Your task to perform on an android device: turn on javascript in the chrome app Image 0: 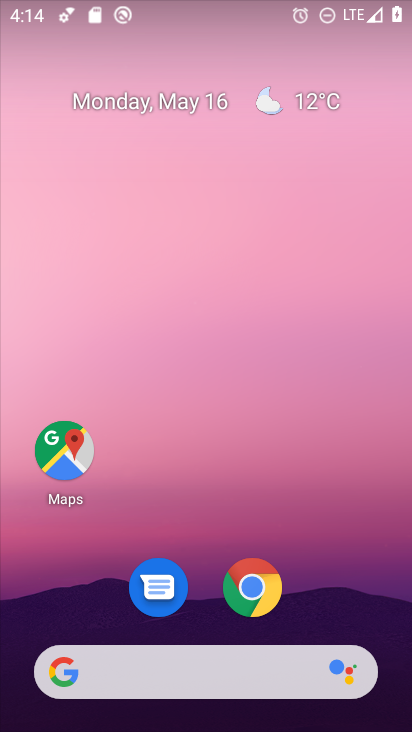
Step 0: click (253, 586)
Your task to perform on an android device: turn on javascript in the chrome app Image 1: 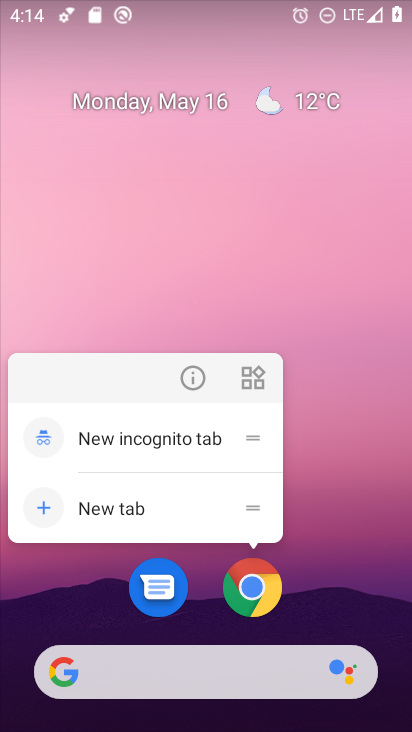
Step 1: click (253, 586)
Your task to perform on an android device: turn on javascript in the chrome app Image 2: 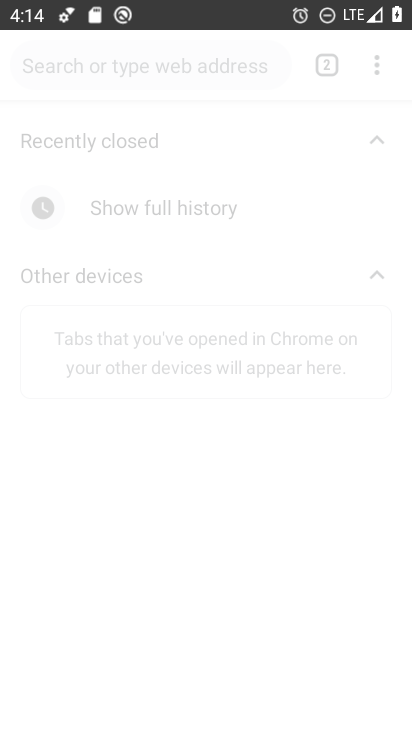
Step 2: click (253, 584)
Your task to perform on an android device: turn on javascript in the chrome app Image 3: 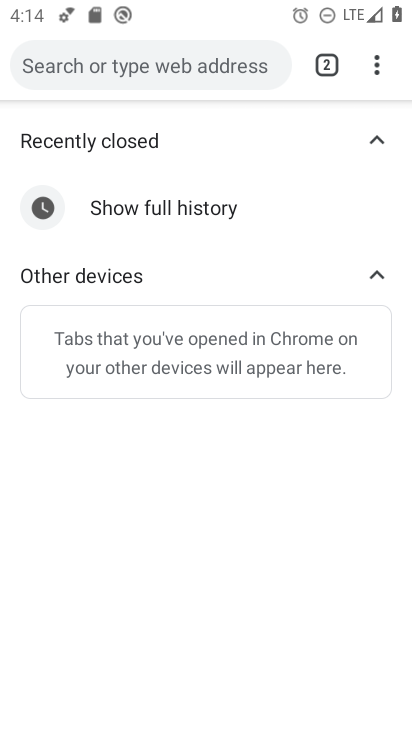
Step 3: click (371, 63)
Your task to perform on an android device: turn on javascript in the chrome app Image 4: 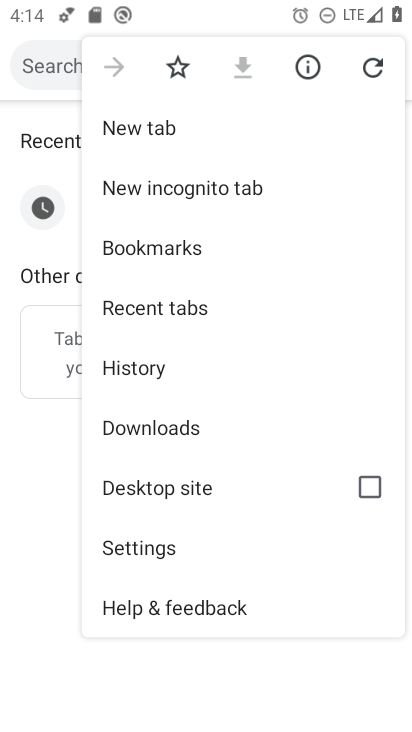
Step 4: drag from (227, 576) to (228, 275)
Your task to perform on an android device: turn on javascript in the chrome app Image 5: 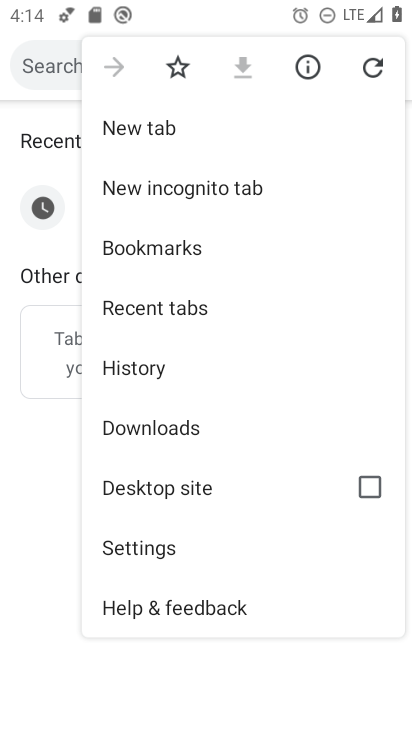
Step 5: click (154, 546)
Your task to perform on an android device: turn on javascript in the chrome app Image 6: 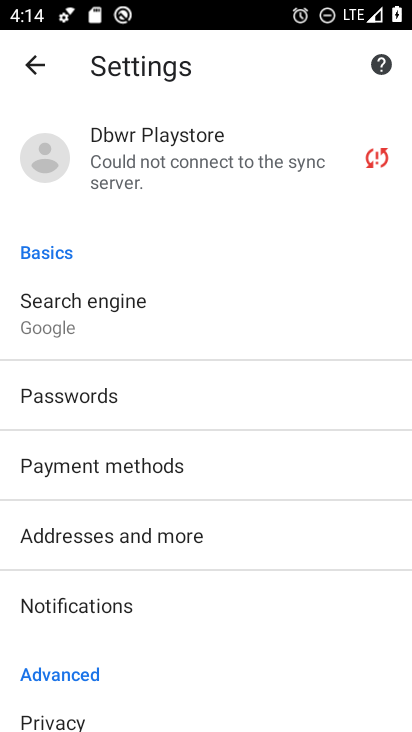
Step 6: drag from (258, 669) to (234, 312)
Your task to perform on an android device: turn on javascript in the chrome app Image 7: 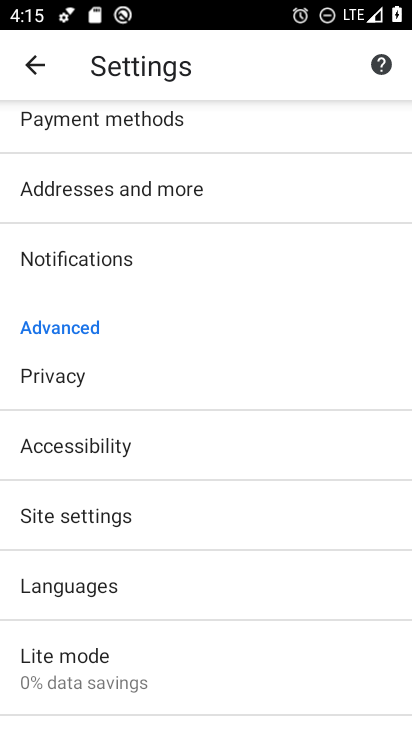
Step 7: click (60, 515)
Your task to perform on an android device: turn on javascript in the chrome app Image 8: 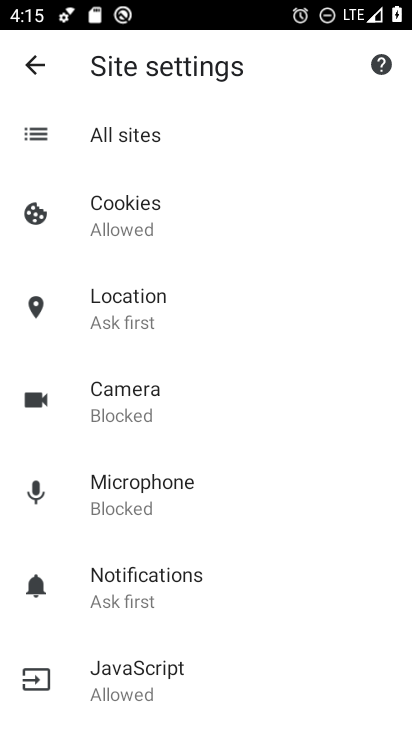
Step 8: click (117, 677)
Your task to perform on an android device: turn on javascript in the chrome app Image 9: 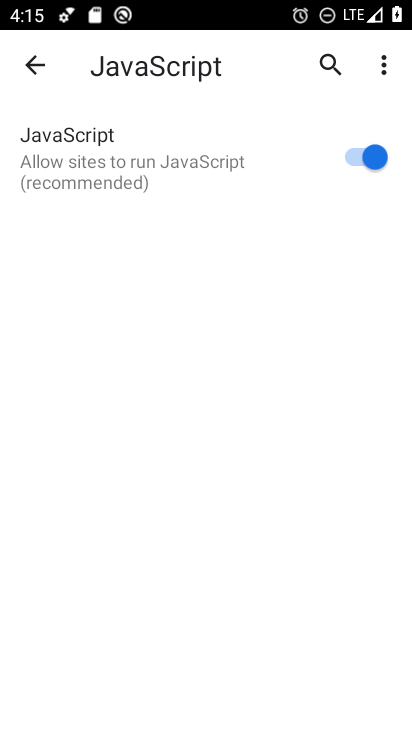
Step 9: task complete